Your task to perform on an android device: change the clock display to digital Image 0: 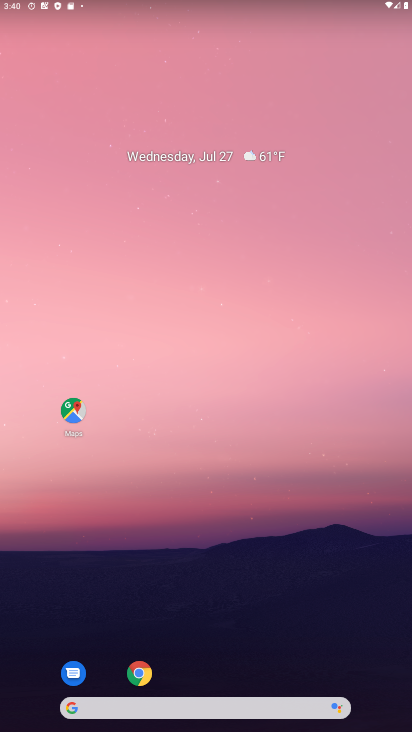
Step 0: drag from (61, 629) to (205, 49)
Your task to perform on an android device: change the clock display to digital Image 1: 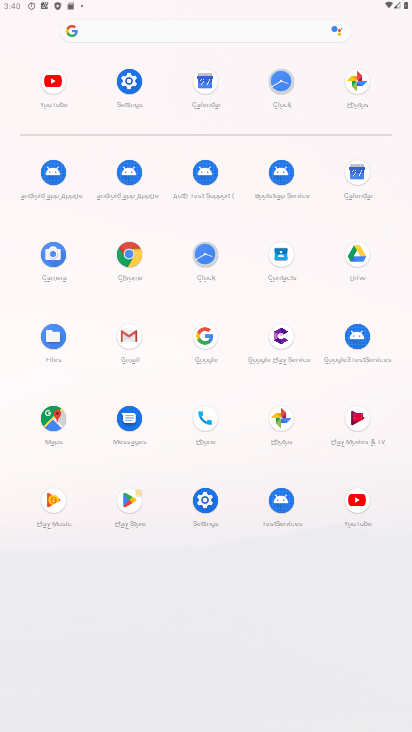
Step 1: click (198, 501)
Your task to perform on an android device: change the clock display to digital Image 2: 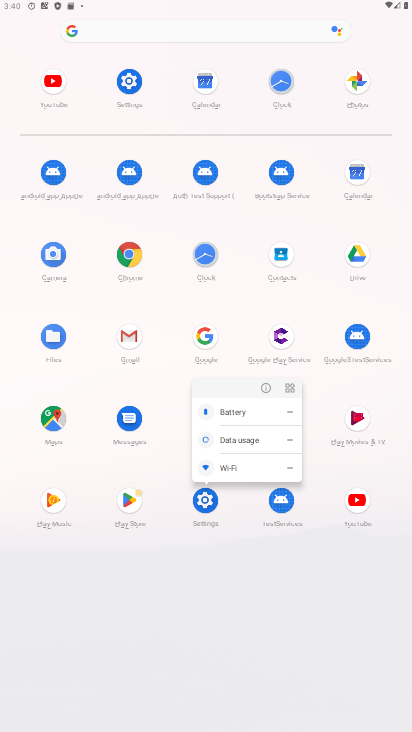
Step 2: click (215, 261)
Your task to perform on an android device: change the clock display to digital Image 3: 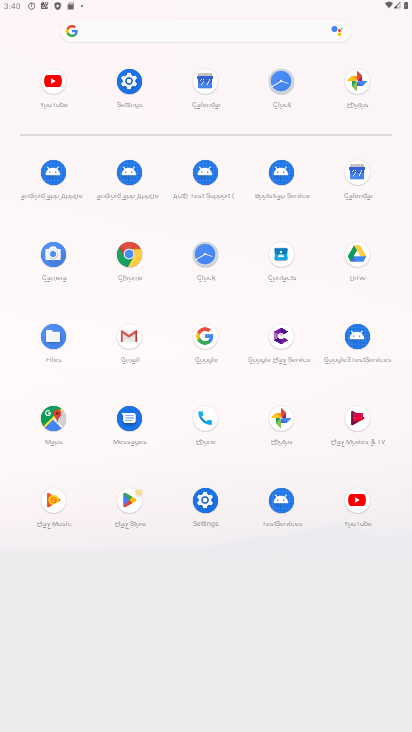
Step 3: click (201, 251)
Your task to perform on an android device: change the clock display to digital Image 4: 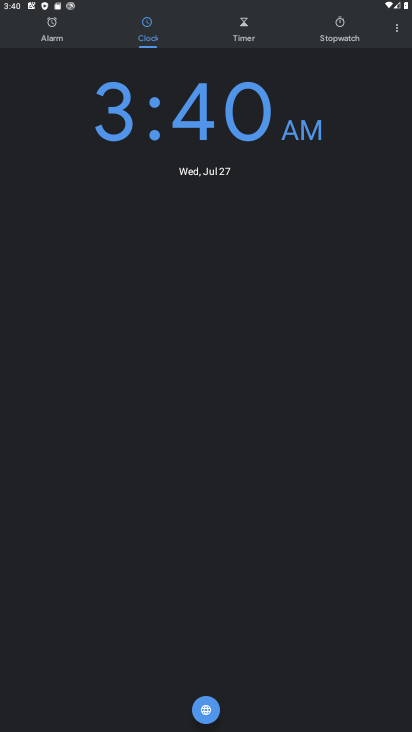
Step 4: click (400, 26)
Your task to perform on an android device: change the clock display to digital Image 5: 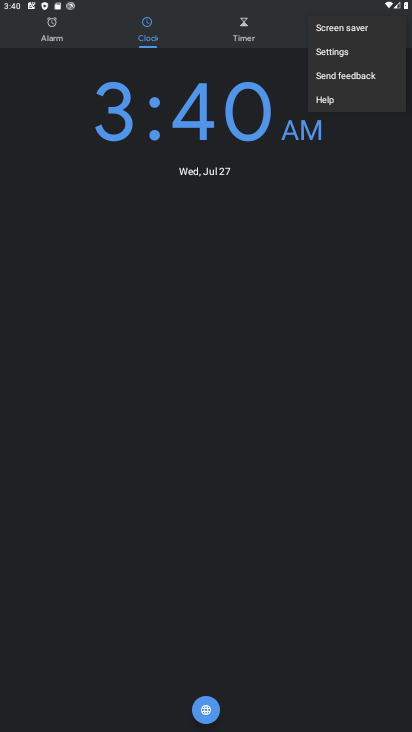
Step 5: click (326, 55)
Your task to perform on an android device: change the clock display to digital Image 6: 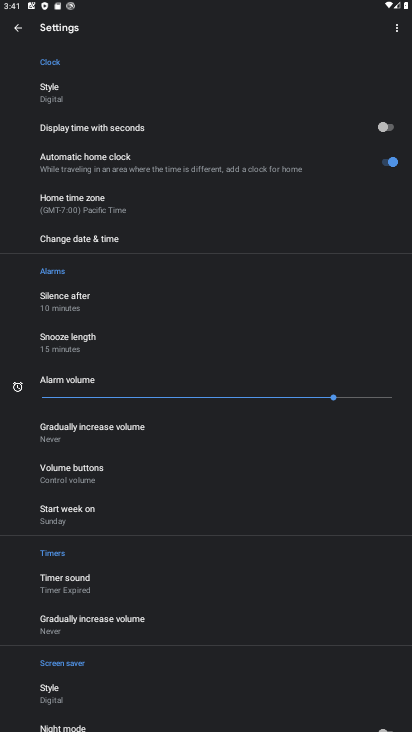
Step 6: task complete